Your task to perform on an android device: turn on the 24-hour format for clock Image 0: 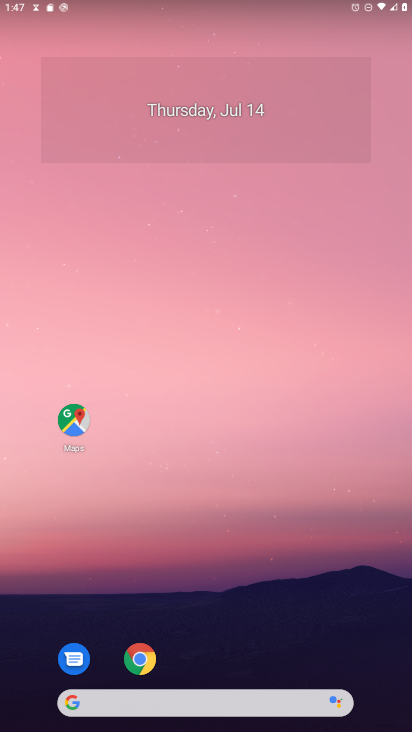
Step 0: drag from (5, 681) to (52, 723)
Your task to perform on an android device: turn on the 24-hour format for clock Image 1: 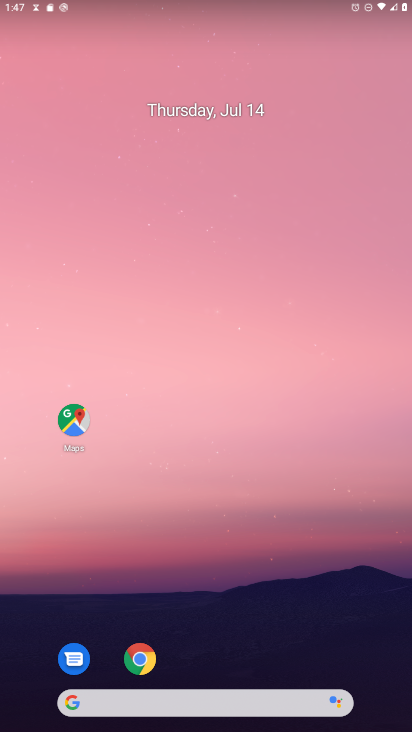
Step 1: drag from (9, 688) to (209, 152)
Your task to perform on an android device: turn on the 24-hour format for clock Image 2: 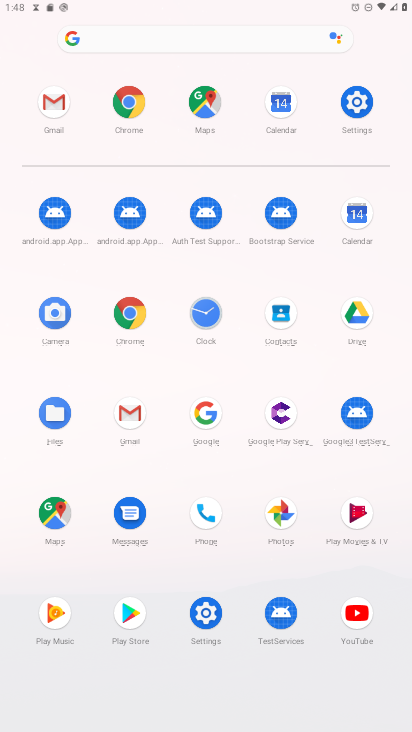
Step 2: click (197, 320)
Your task to perform on an android device: turn on the 24-hour format for clock Image 3: 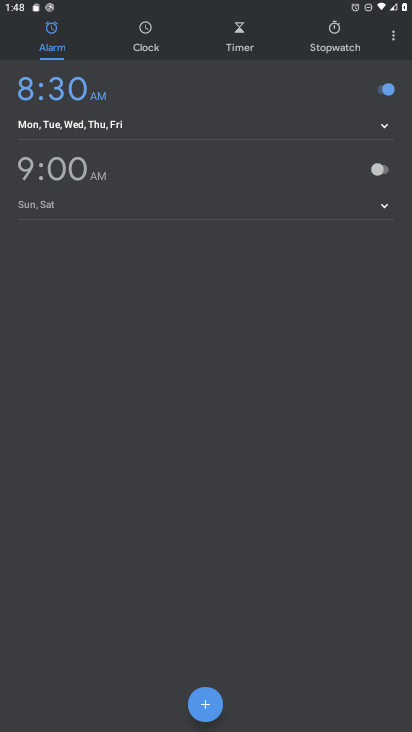
Step 3: click (391, 39)
Your task to perform on an android device: turn on the 24-hour format for clock Image 4: 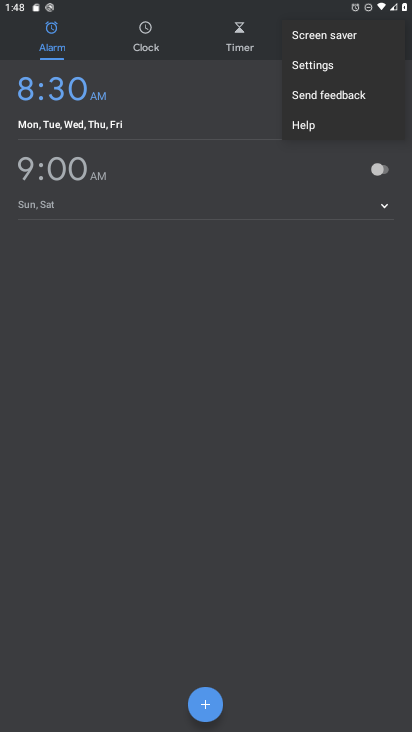
Step 4: click (315, 69)
Your task to perform on an android device: turn on the 24-hour format for clock Image 5: 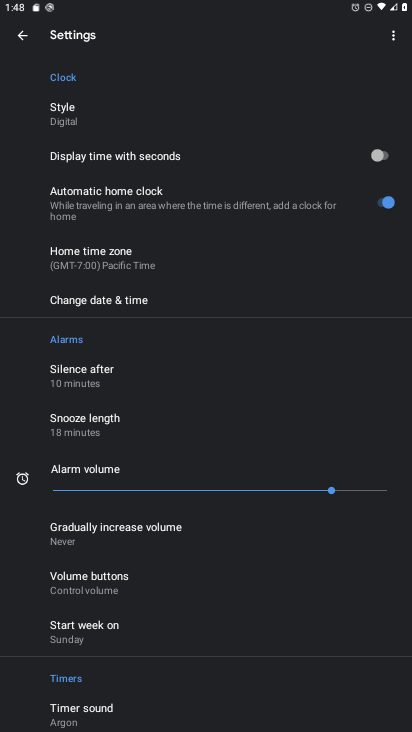
Step 5: click (118, 304)
Your task to perform on an android device: turn on the 24-hour format for clock Image 6: 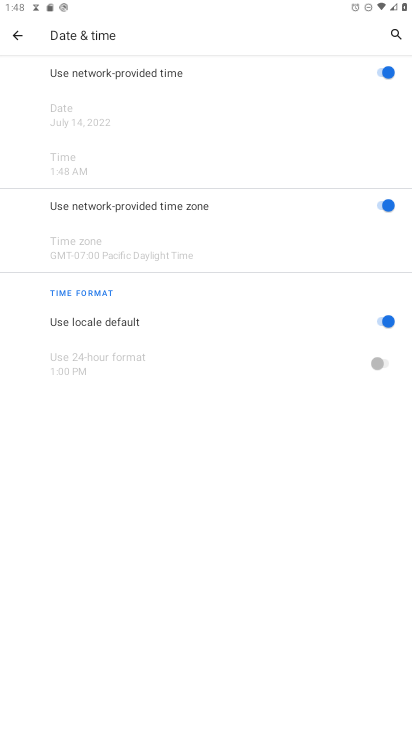
Step 6: click (393, 320)
Your task to perform on an android device: turn on the 24-hour format for clock Image 7: 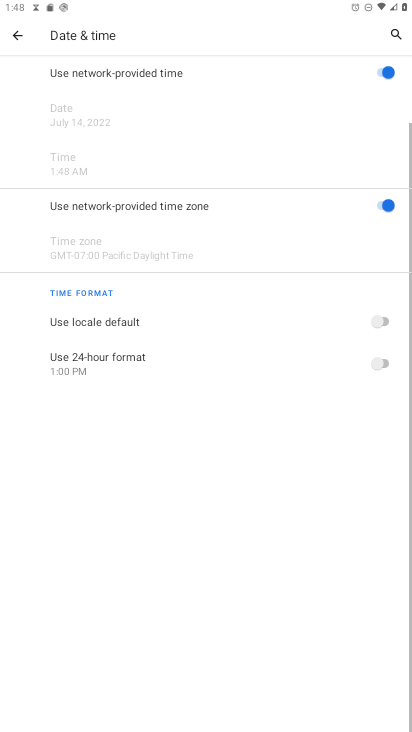
Step 7: click (380, 370)
Your task to perform on an android device: turn on the 24-hour format for clock Image 8: 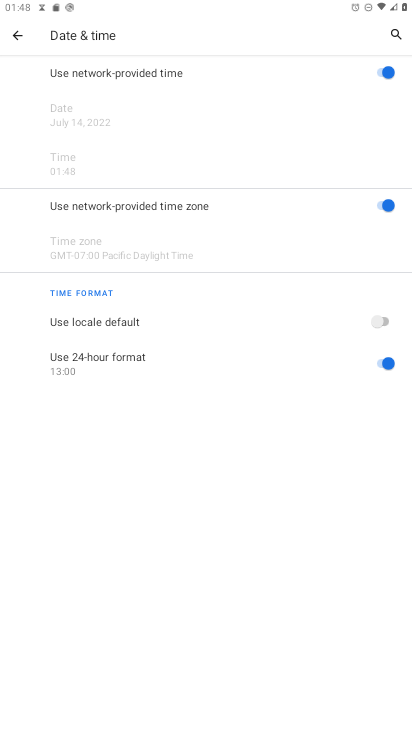
Step 8: task complete